Your task to perform on an android device: Search for pizza restaurants on Maps Image 0: 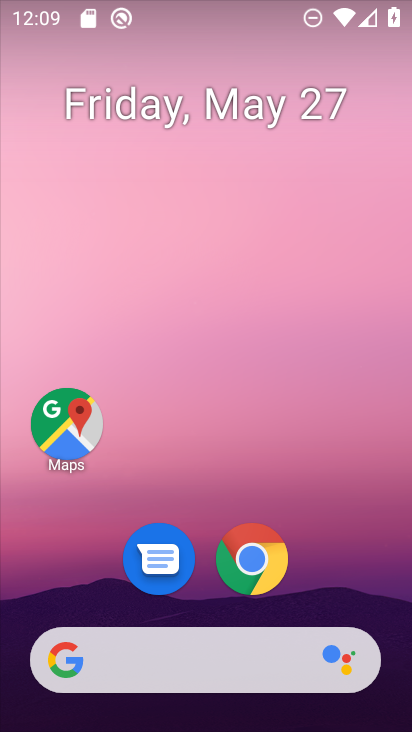
Step 0: click (73, 434)
Your task to perform on an android device: Search for pizza restaurants on Maps Image 1: 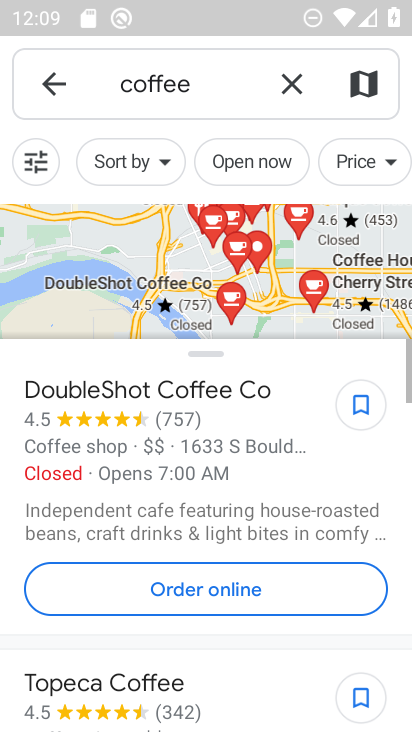
Step 1: click (295, 81)
Your task to perform on an android device: Search for pizza restaurants on Maps Image 2: 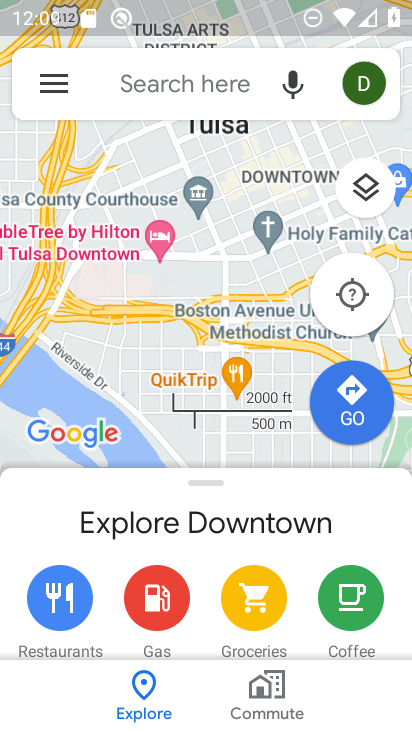
Step 2: click (183, 71)
Your task to perform on an android device: Search for pizza restaurants on Maps Image 3: 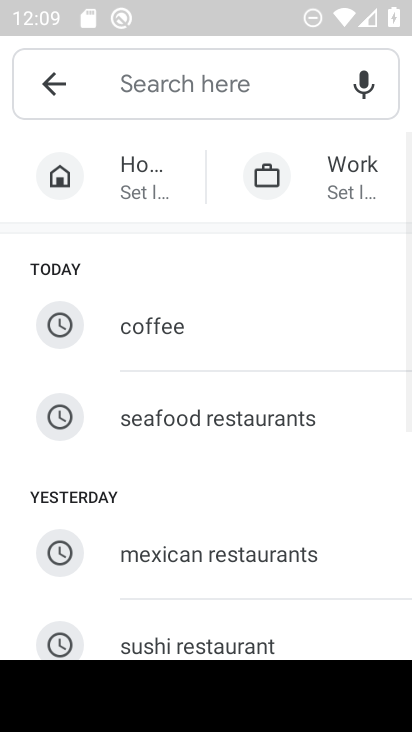
Step 3: drag from (197, 499) to (303, 129)
Your task to perform on an android device: Search for pizza restaurants on Maps Image 4: 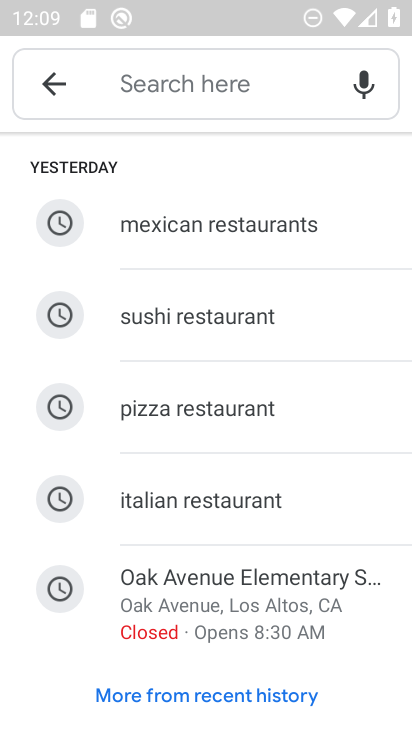
Step 4: click (220, 399)
Your task to perform on an android device: Search for pizza restaurants on Maps Image 5: 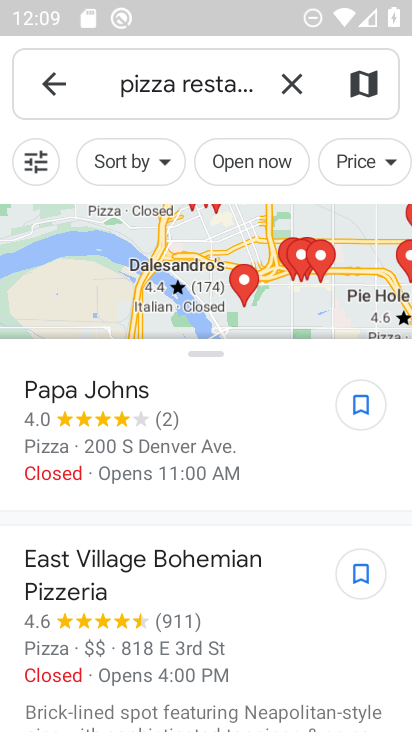
Step 5: task complete